Your task to perform on an android device: change timer sound Image 0: 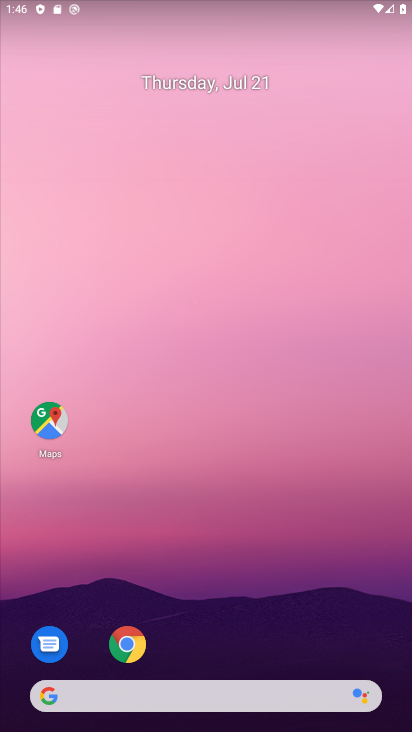
Step 0: drag from (243, 649) to (257, 170)
Your task to perform on an android device: change timer sound Image 1: 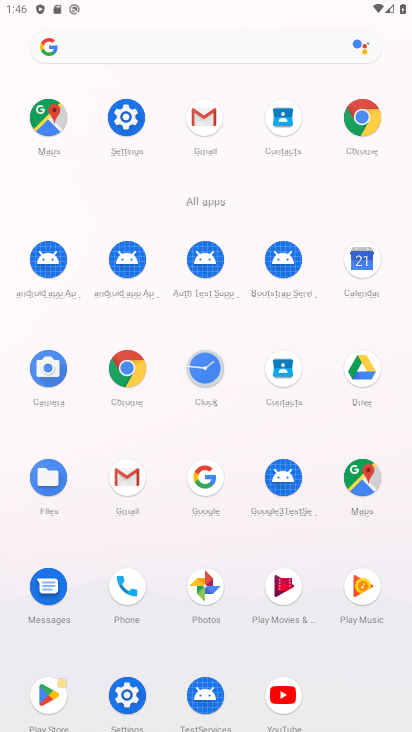
Step 1: click (213, 372)
Your task to perform on an android device: change timer sound Image 2: 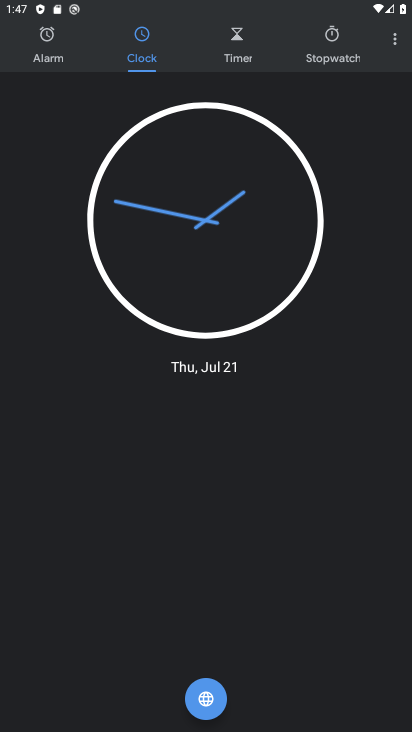
Step 2: click (399, 46)
Your task to perform on an android device: change timer sound Image 3: 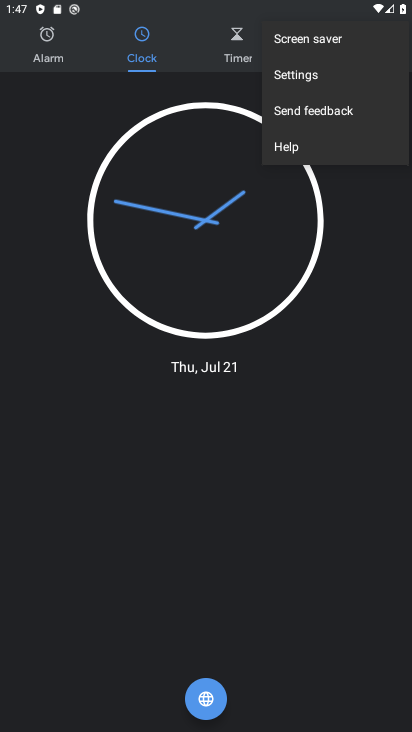
Step 3: click (315, 83)
Your task to perform on an android device: change timer sound Image 4: 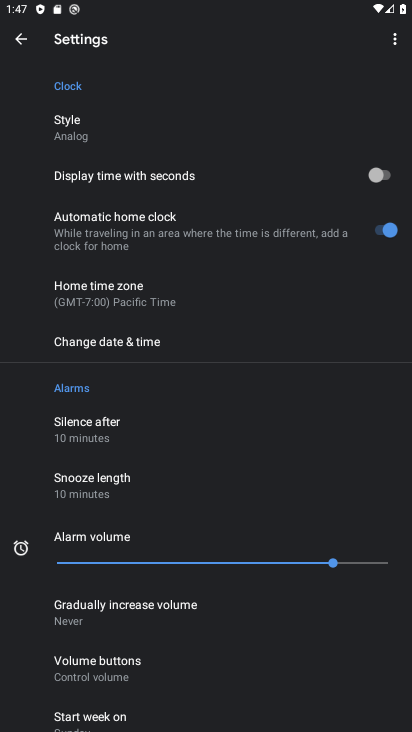
Step 4: drag from (129, 647) to (67, 189)
Your task to perform on an android device: change timer sound Image 5: 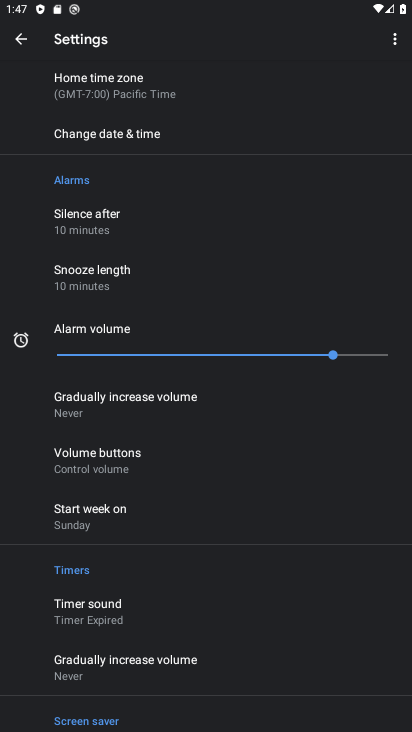
Step 5: click (102, 611)
Your task to perform on an android device: change timer sound Image 6: 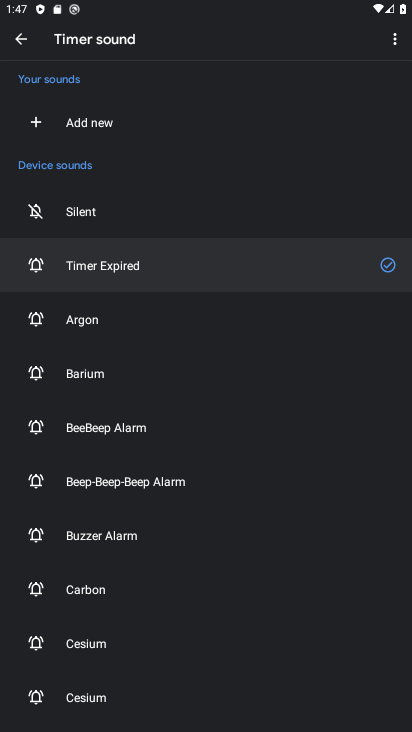
Step 6: click (48, 325)
Your task to perform on an android device: change timer sound Image 7: 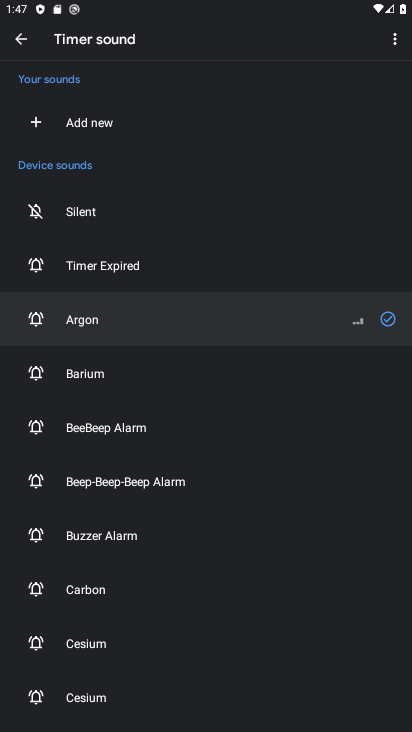
Step 7: task complete